Your task to perform on an android device: Search for seafood restaurants on Google Maps Image 0: 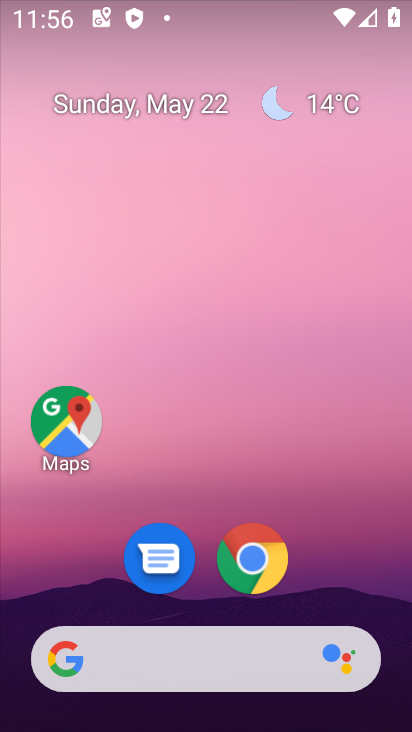
Step 0: click (63, 427)
Your task to perform on an android device: Search for seafood restaurants on Google Maps Image 1: 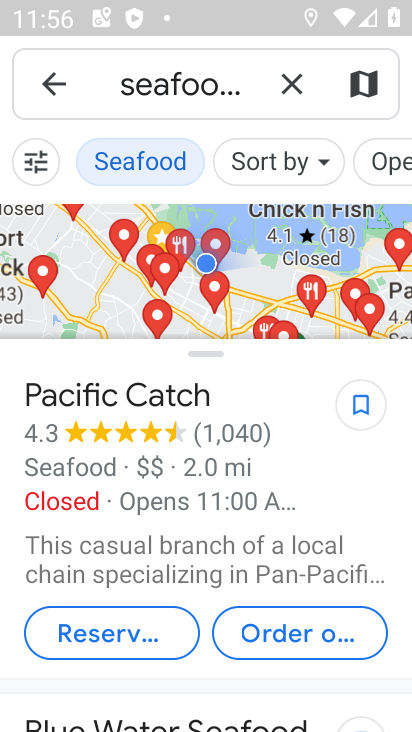
Step 1: task complete